Your task to perform on an android device: Open Google Image 0: 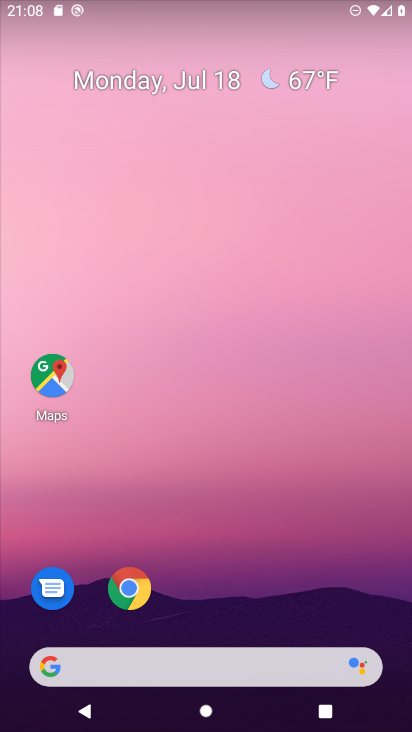
Step 0: click (132, 589)
Your task to perform on an android device: Open Google Image 1: 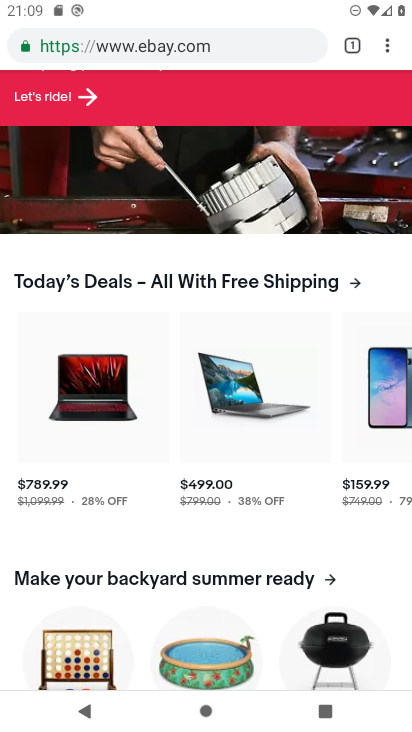
Step 1: task complete